Your task to perform on an android device: open chrome and create a bookmark for the current page Image 0: 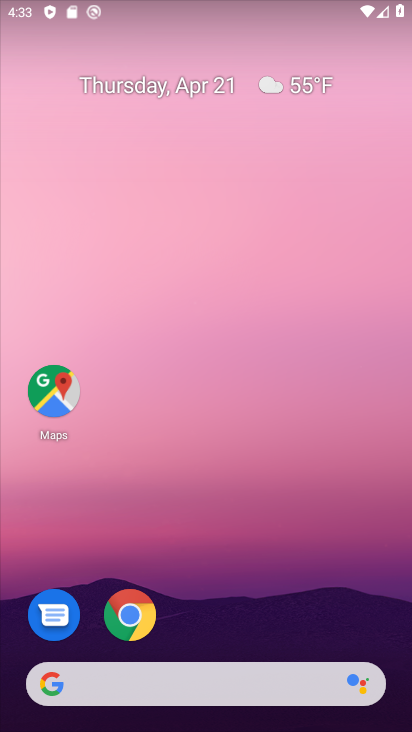
Step 0: click (126, 612)
Your task to perform on an android device: open chrome and create a bookmark for the current page Image 1: 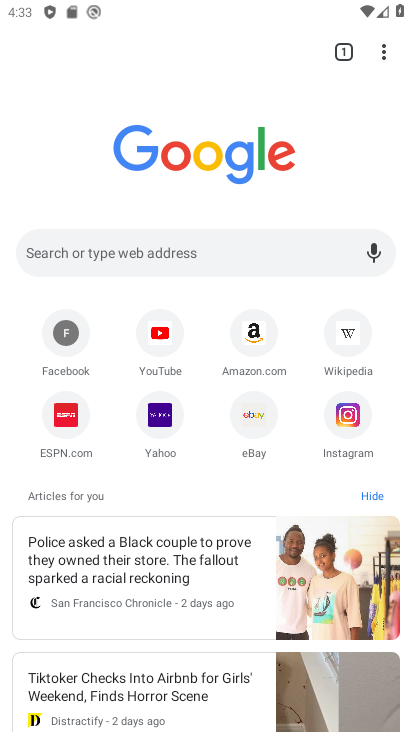
Step 1: click (188, 252)
Your task to perform on an android device: open chrome and create a bookmark for the current page Image 2: 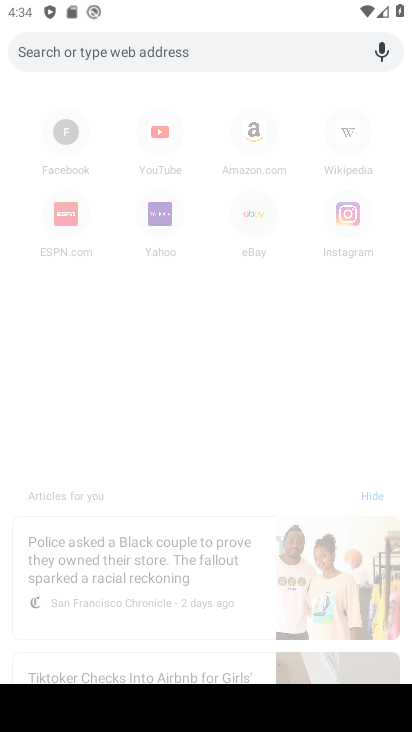
Step 2: type "sdgrd"
Your task to perform on an android device: open chrome and create a bookmark for the current page Image 3: 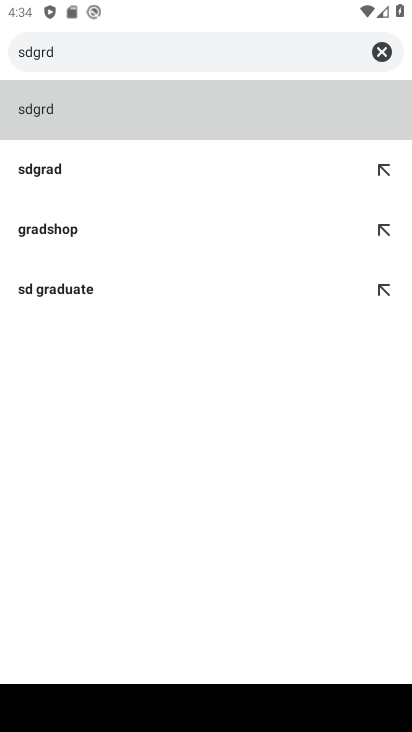
Step 3: click (130, 111)
Your task to perform on an android device: open chrome and create a bookmark for the current page Image 4: 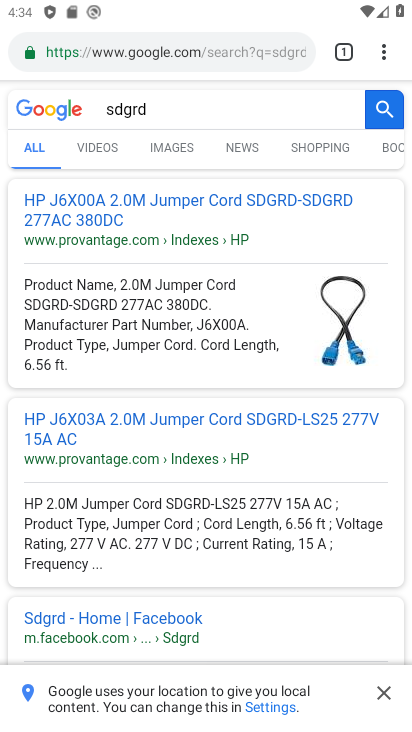
Step 4: click (86, 211)
Your task to perform on an android device: open chrome and create a bookmark for the current page Image 5: 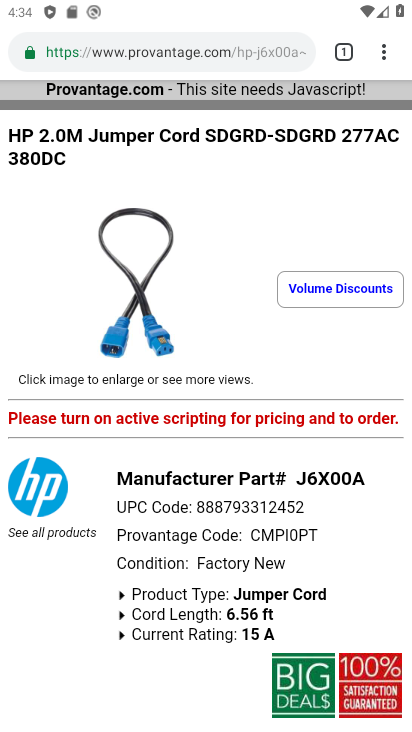
Step 5: task complete